Your task to perform on an android device: empty trash in the gmail app Image 0: 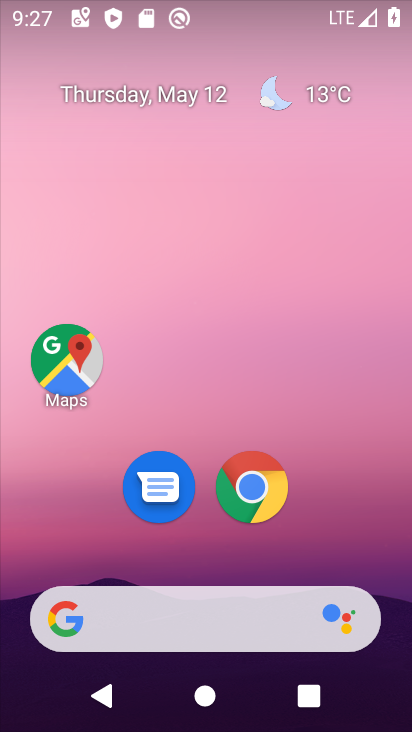
Step 0: drag from (382, 575) to (364, 0)
Your task to perform on an android device: empty trash in the gmail app Image 1: 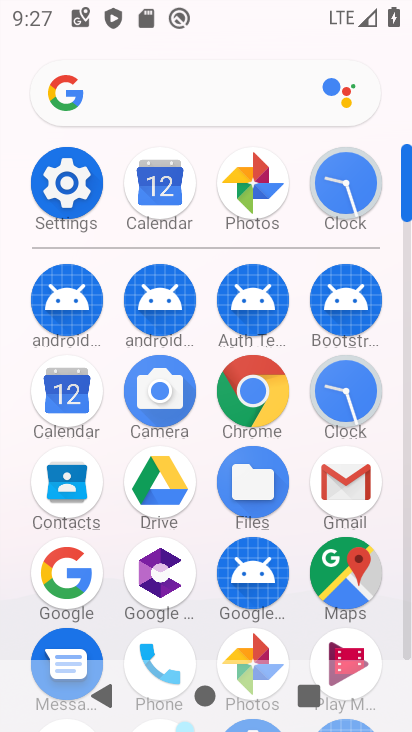
Step 1: click (340, 483)
Your task to perform on an android device: empty trash in the gmail app Image 2: 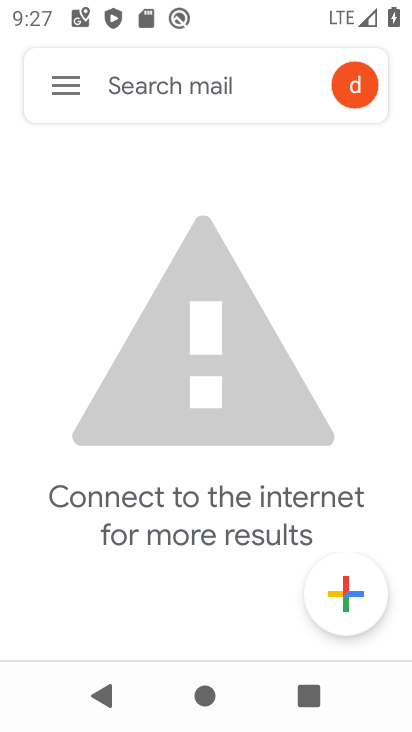
Step 2: click (77, 88)
Your task to perform on an android device: empty trash in the gmail app Image 3: 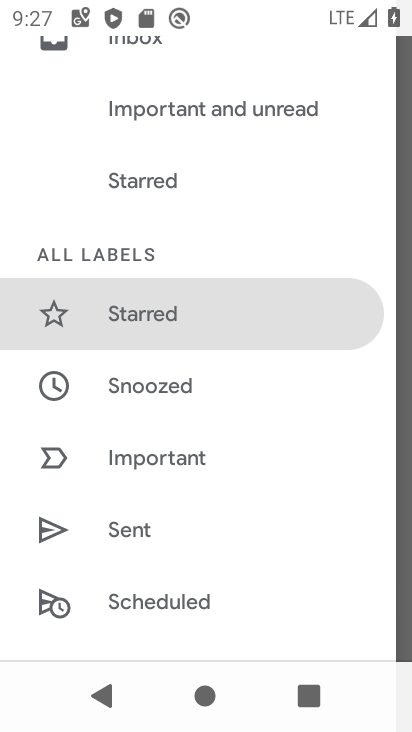
Step 3: drag from (270, 332) to (289, 23)
Your task to perform on an android device: empty trash in the gmail app Image 4: 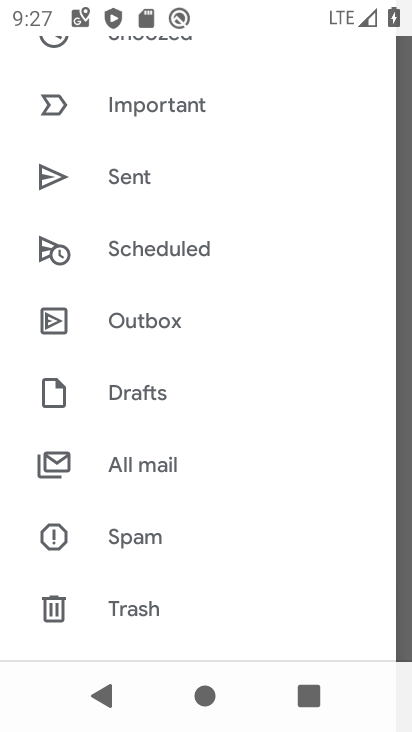
Step 4: click (144, 607)
Your task to perform on an android device: empty trash in the gmail app Image 5: 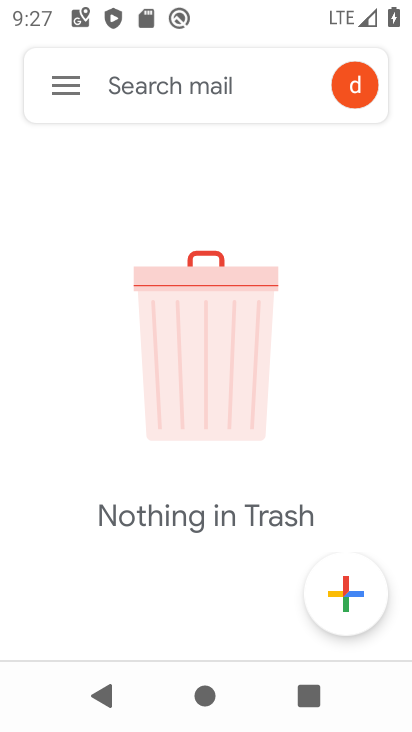
Step 5: task complete